Your task to perform on an android device: Add dell xps to the cart on costco.com, then select checkout. Image 0: 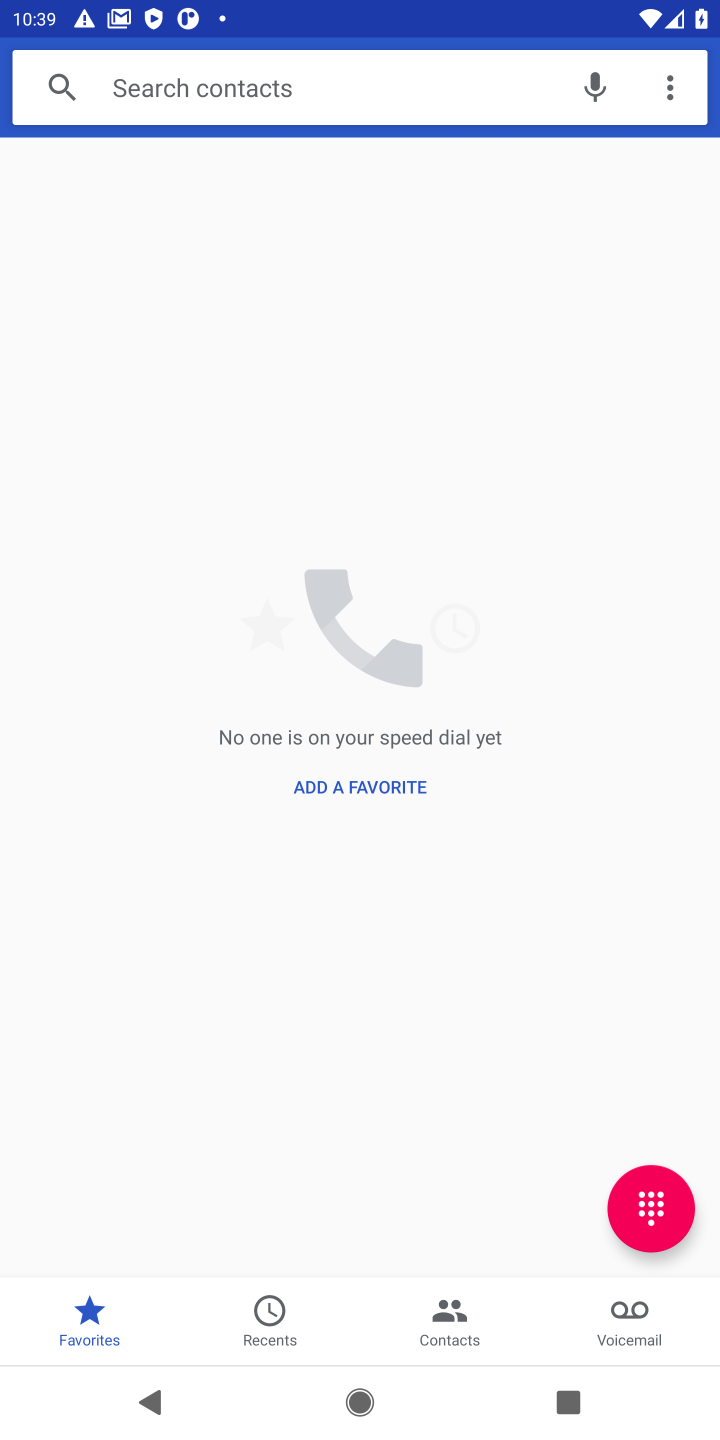
Step 0: press home button
Your task to perform on an android device: Add dell xps to the cart on costco.com, then select checkout. Image 1: 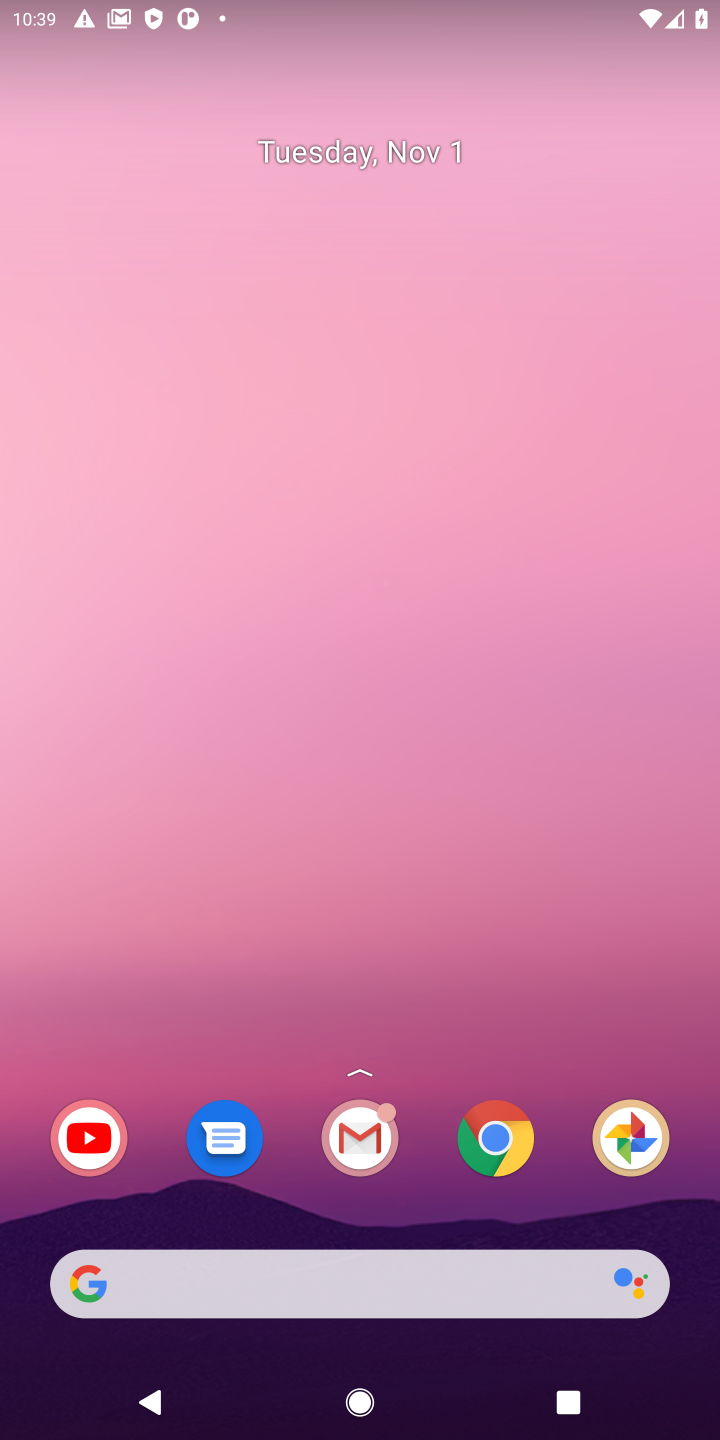
Step 1: click (500, 1162)
Your task to perform on an android device: Add dell xps to the cart on costco.com, then select checkout. Image 2: 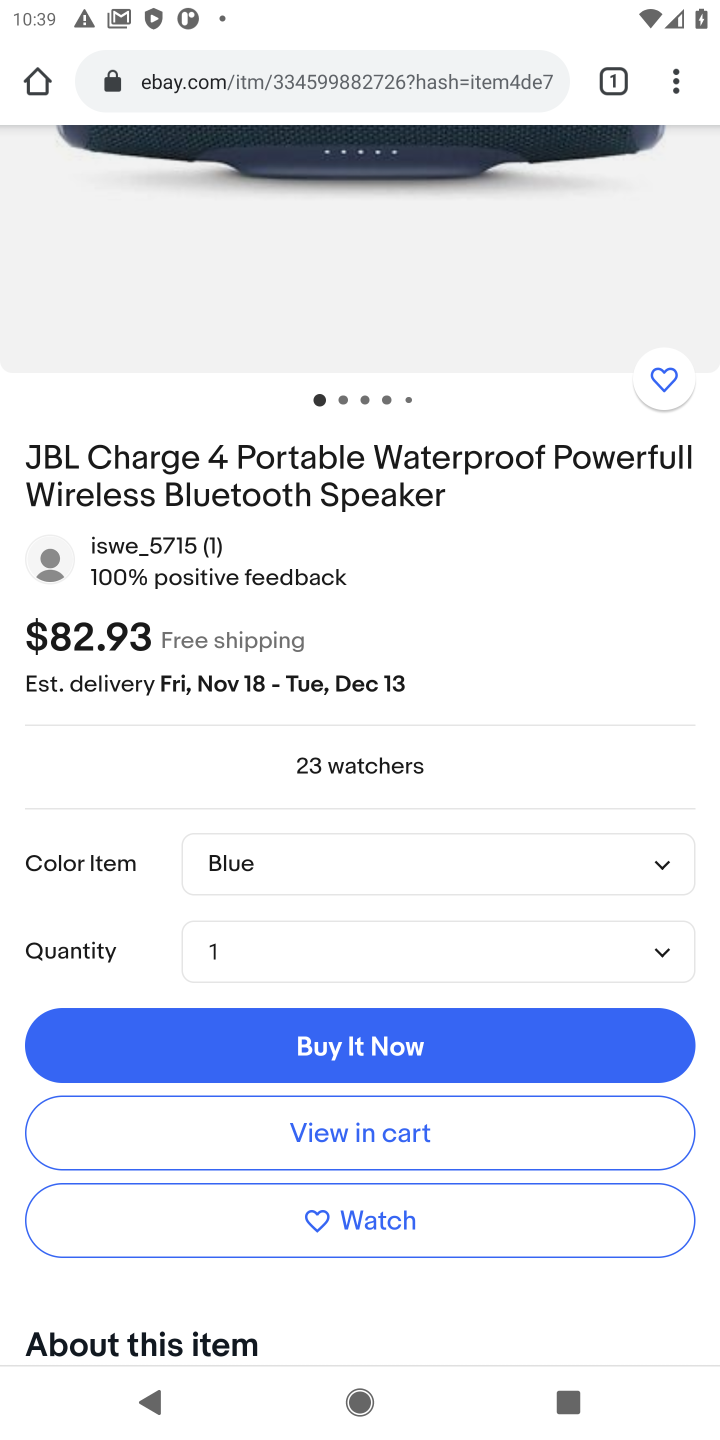
Step 2: click (330, 90)
Your task to perform on an android device: Add dell xps to the cart on costco.com, then select checkout. Image 3: 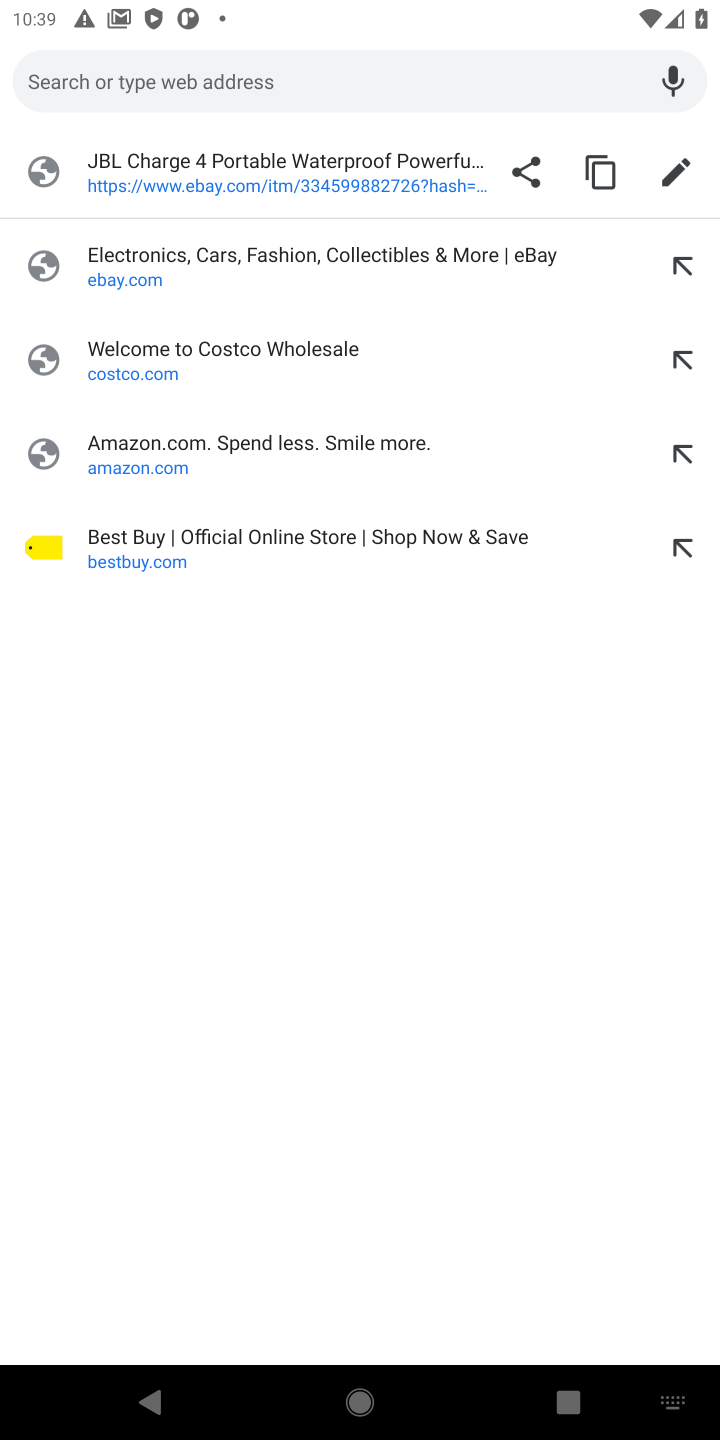
Step 3: type "costco.com"
Your task to perform on an android device: Add dell xps to the cart on costco.com, then select checkout. Image 4: 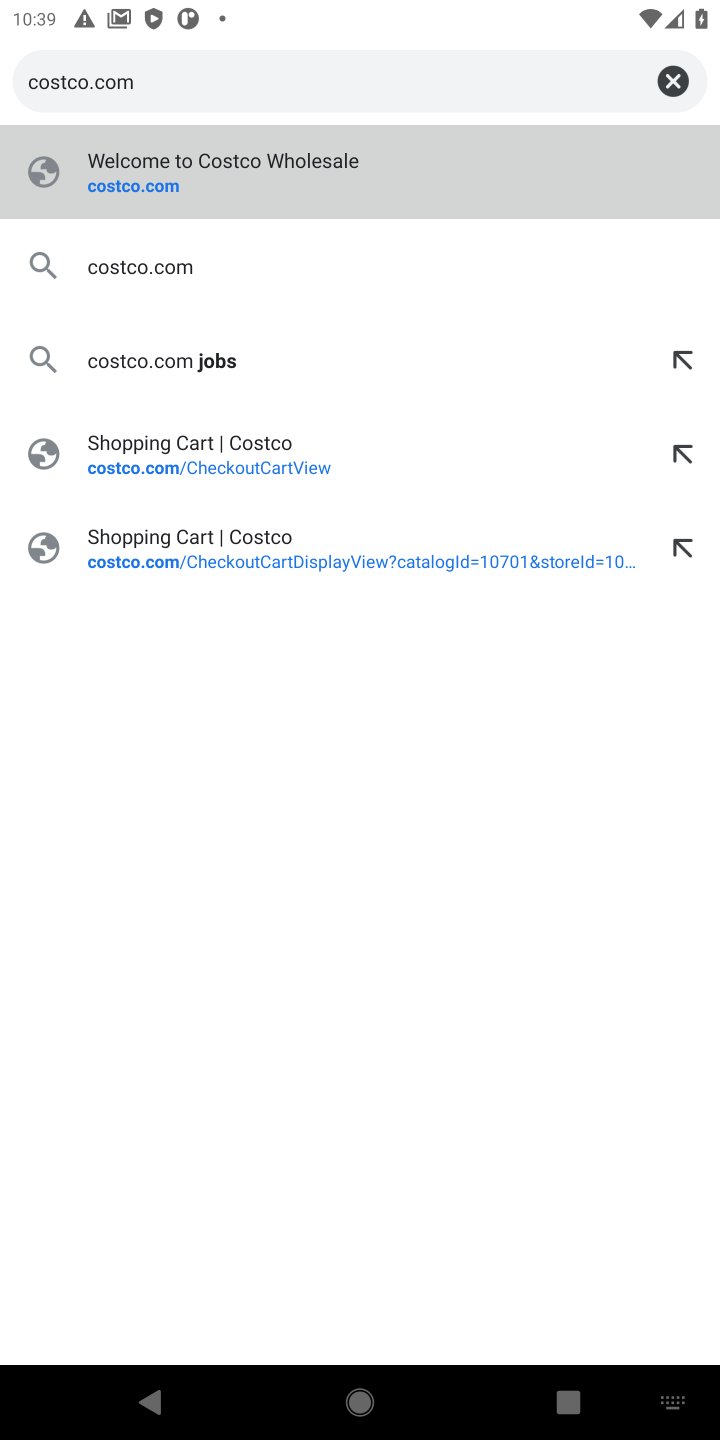
Step 4: click (151, 198)
Your task to perform on an android device: Add dell xps to the cart on costco.com, then select checkout. Image 5: 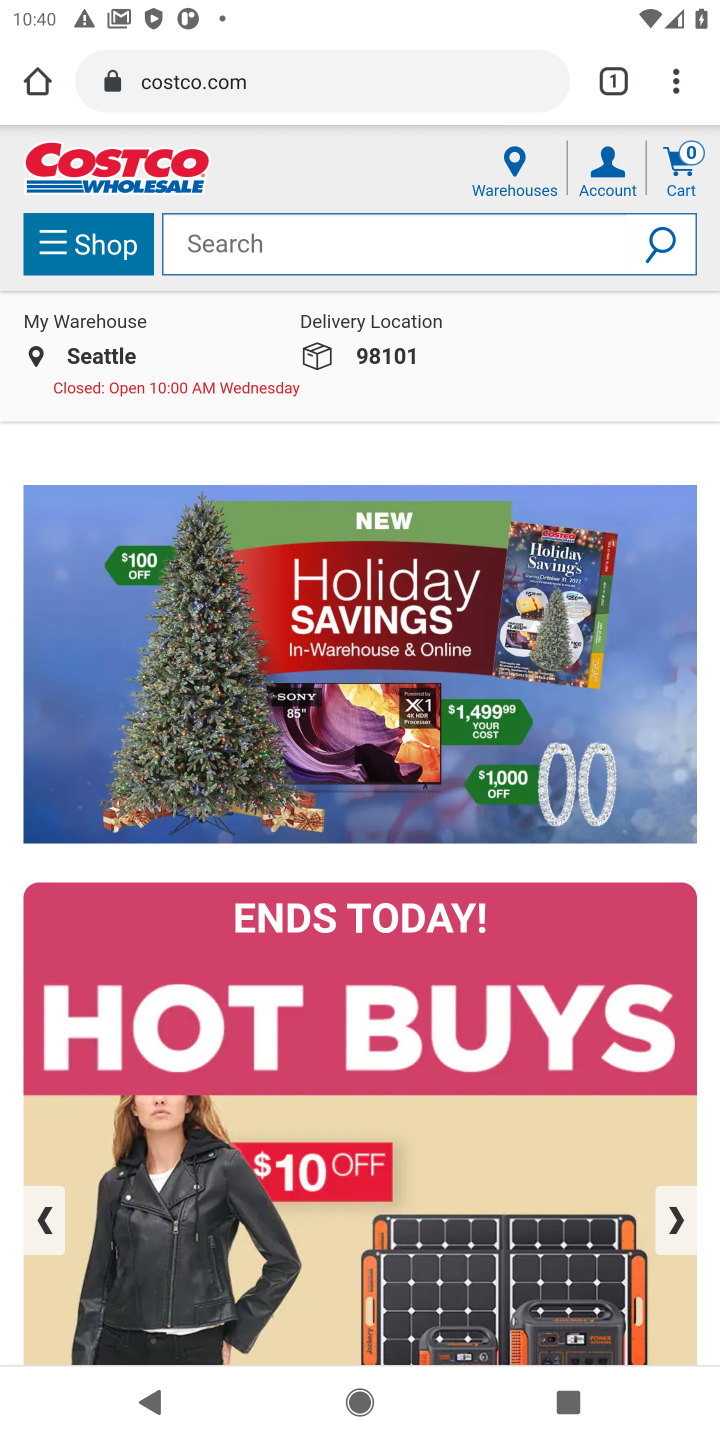
Step 5: click (261, 255)
Your task to perform on an android device: Add dell xps to the cart on costco.com, then select checkout. Image 6: 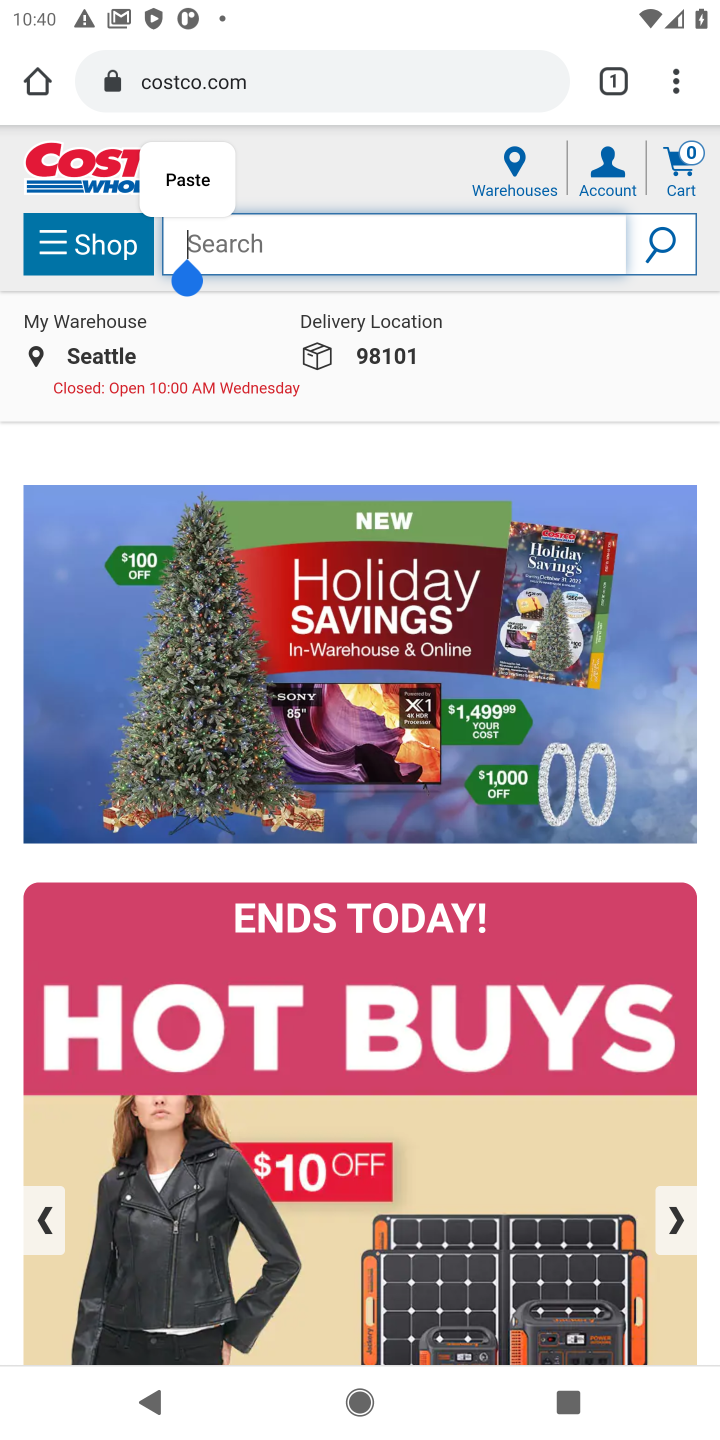
Step 6: type "dell xps "
Your task to perform on an android device: Add dell xps to the cart on costco.com, then select checkout. Image 7: 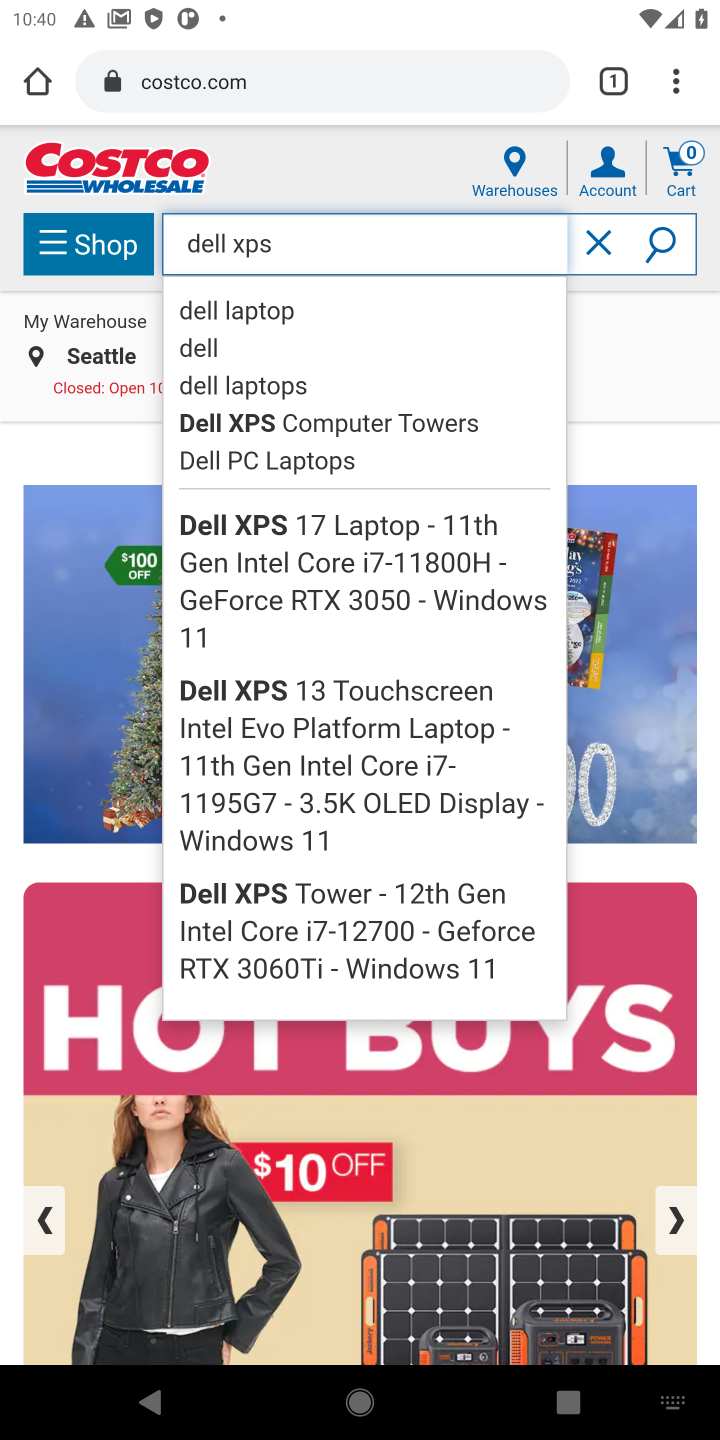
Step 7: click (672, 247)
Your task to perform on an android device: Add dell xps to the cart on costco.com, then select checkout. Image 8: 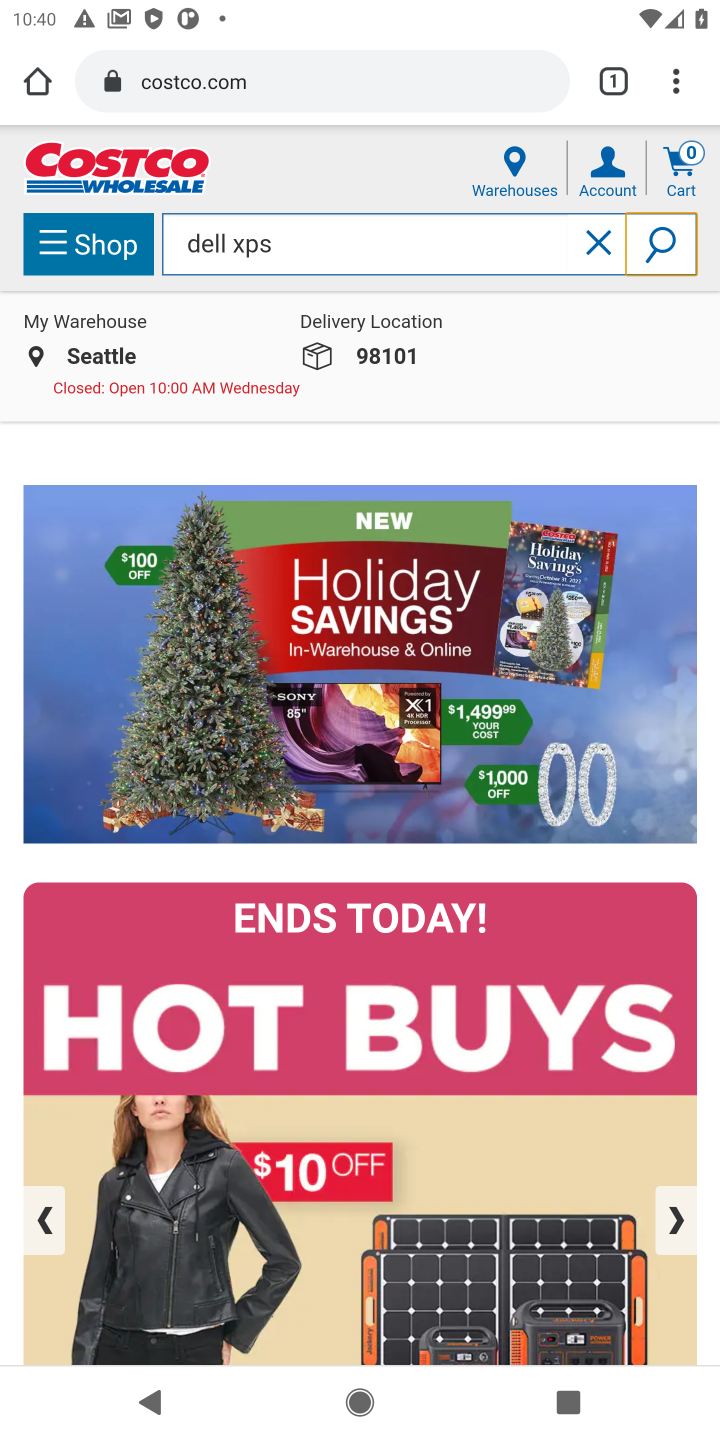
Step 8: click (663, 256)
Your task to perform on an android device: Add dell xps to the cart on costco.com, then select checkout. Image 9: 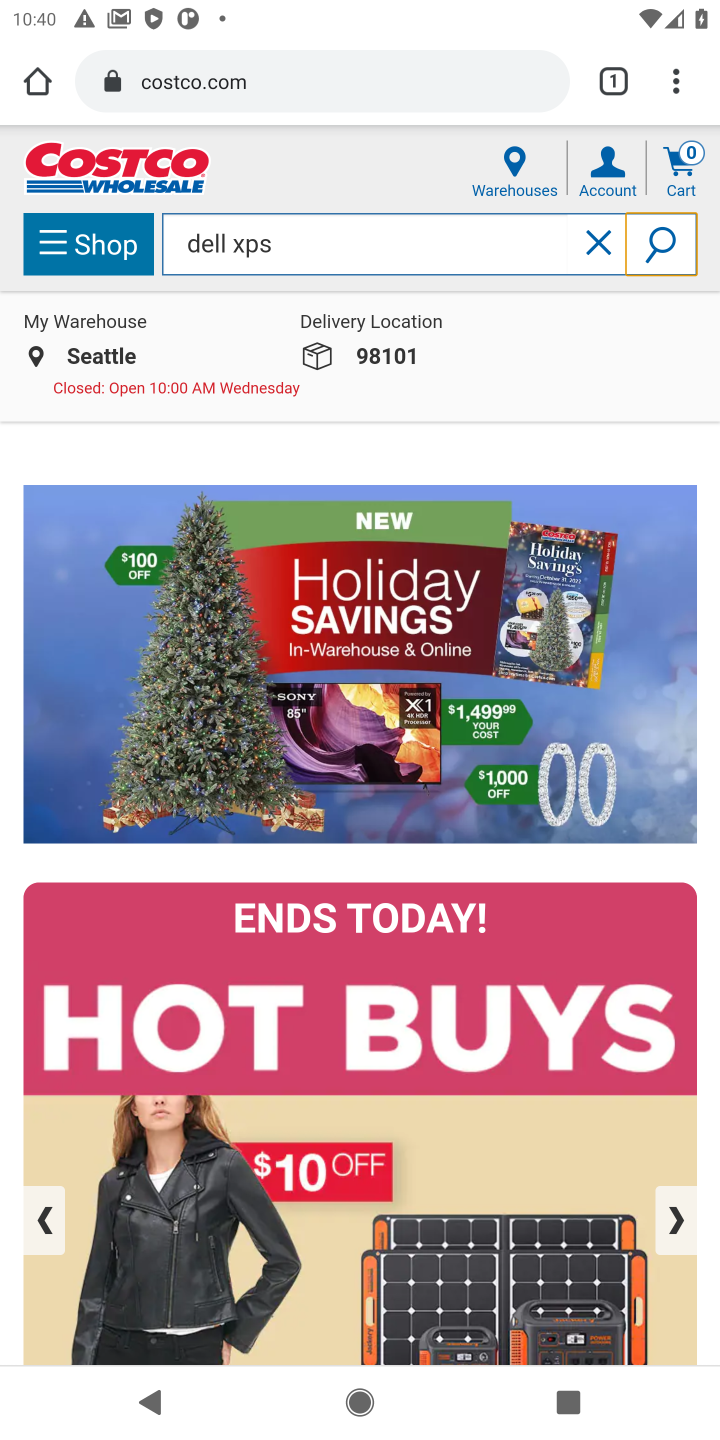
Step 9: click (322, 252)
Your task to perform on an android device: Add dell xps to the cart on costco.com, then select checkout. Image 10: 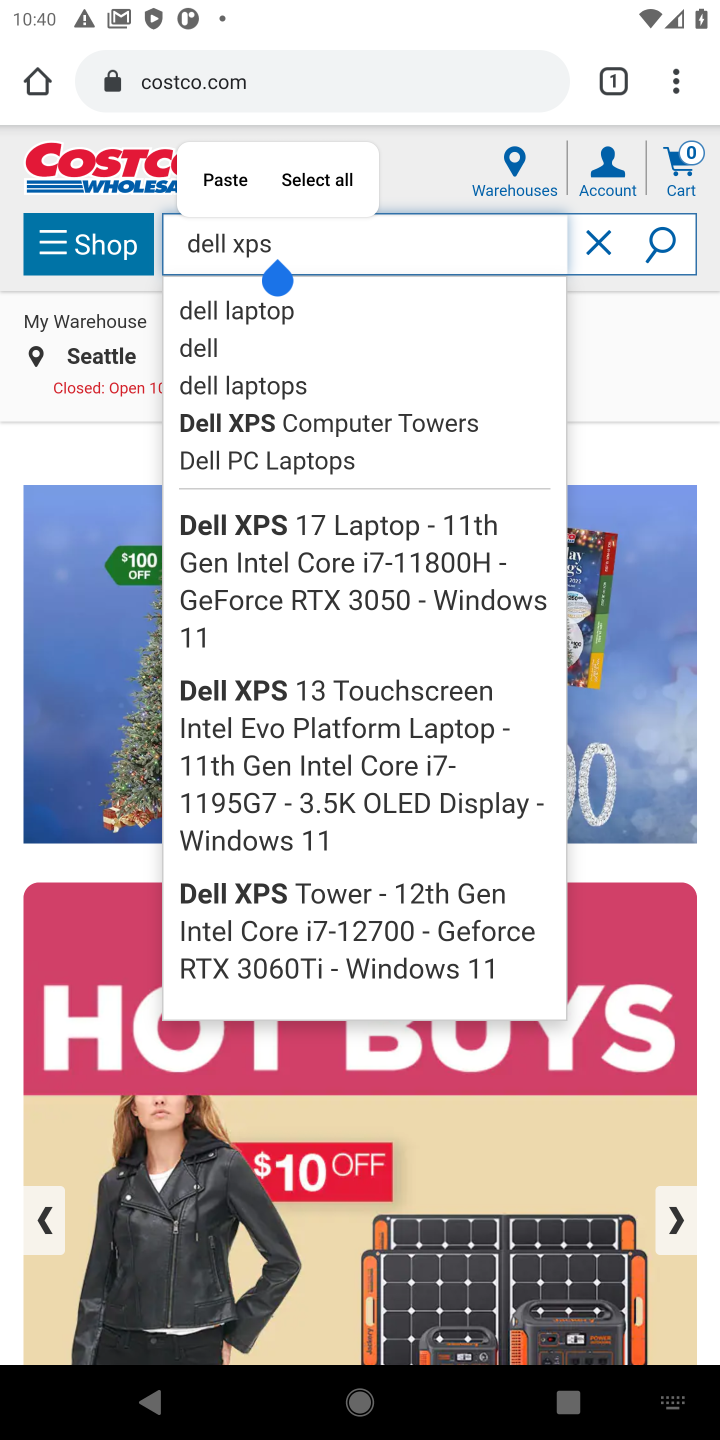
Step 10: click (639, 254)
Your task to perform on an android device: Add dell xps to the cart on costco.com, then select checkout. Image 11: 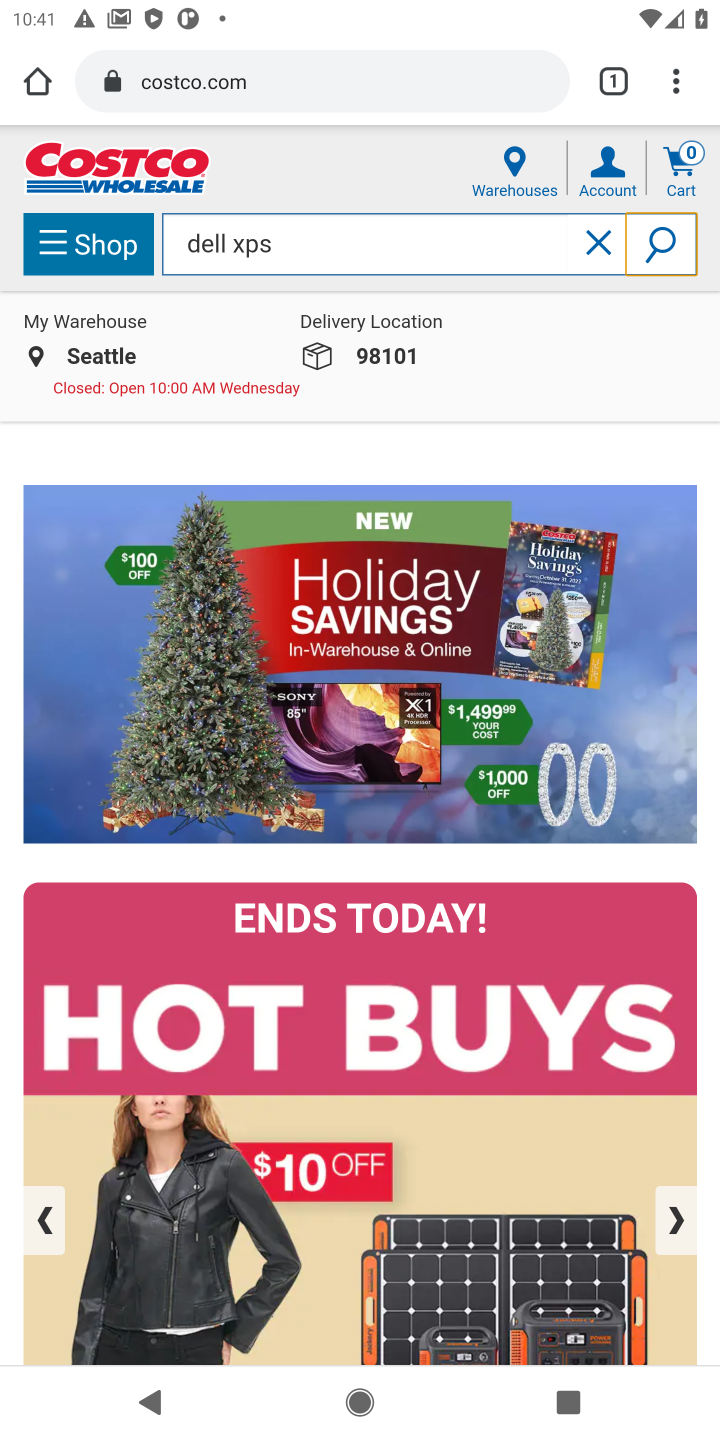
Step 11: click (662, 250)
Your task to perform on an android device: Add dell xps to the cart on costco.com, then select checkout. Image 12: 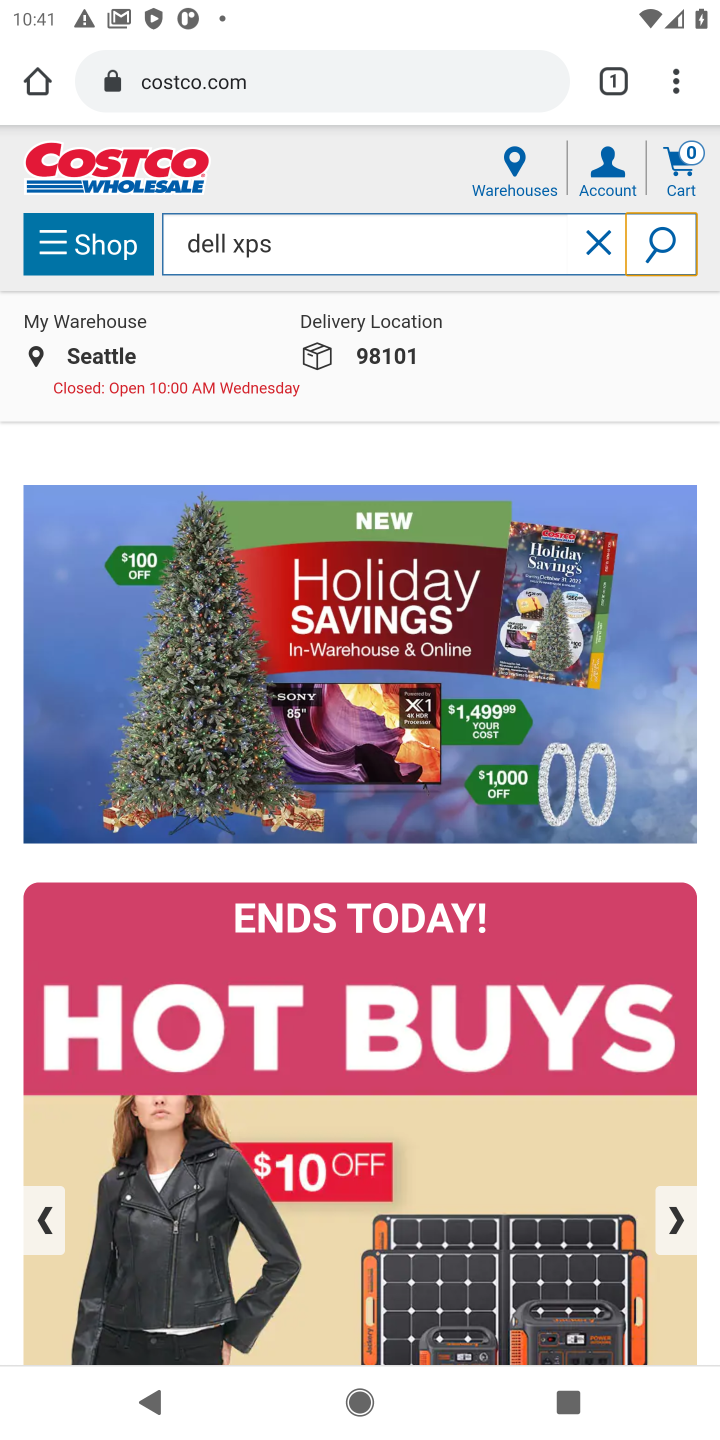
Step 12: click (682, 229)
Your task to perform on an android device: Add dell xps to the cart on costco.com, then select checkout. Image 13: 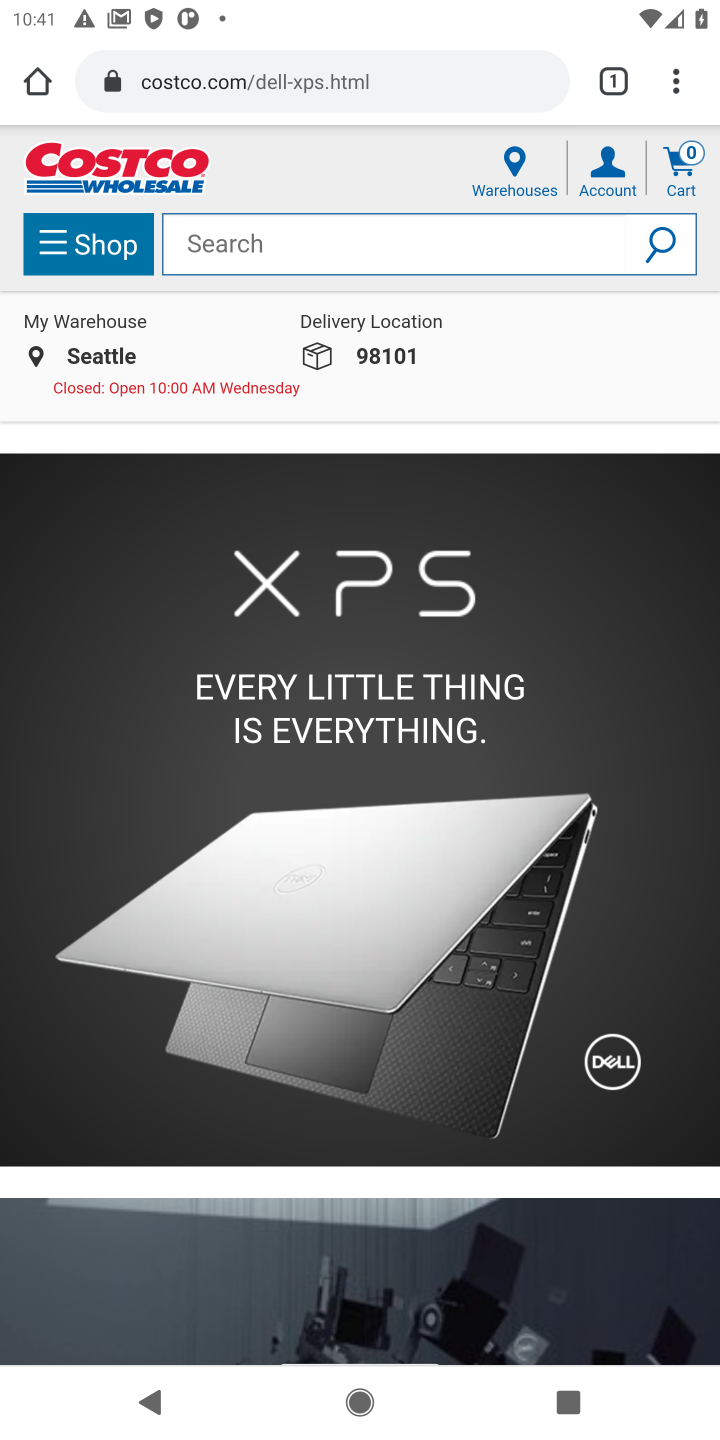
Step 13: drag from (445, 996) to (475, 372)
Your task to perform on an android device: Add dell xps to the cart on costco.com, then select checkout. Image 14: 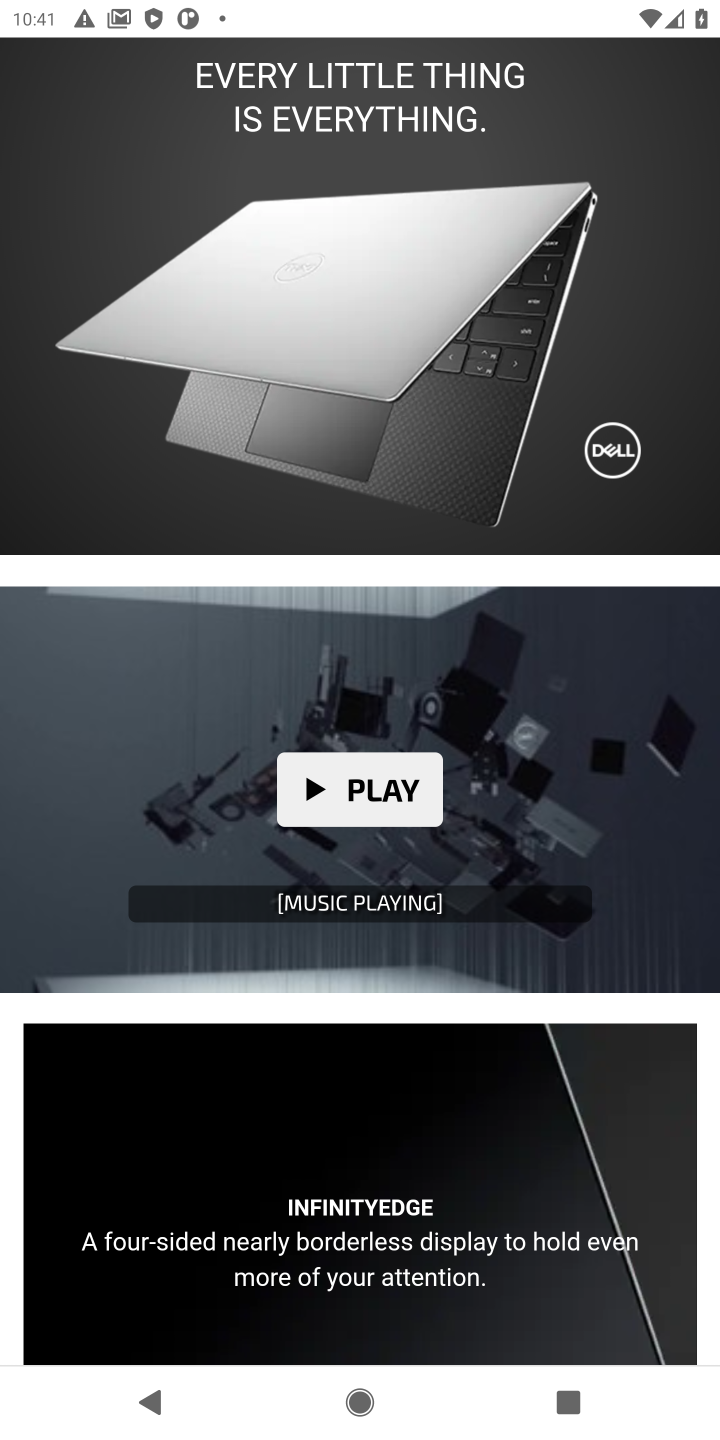
Step 14: drag from (427, 954) to (450, 544)
Your task to perform on an android device: Add dell xps to the cart on costco.com, then select checkout. Image 15: 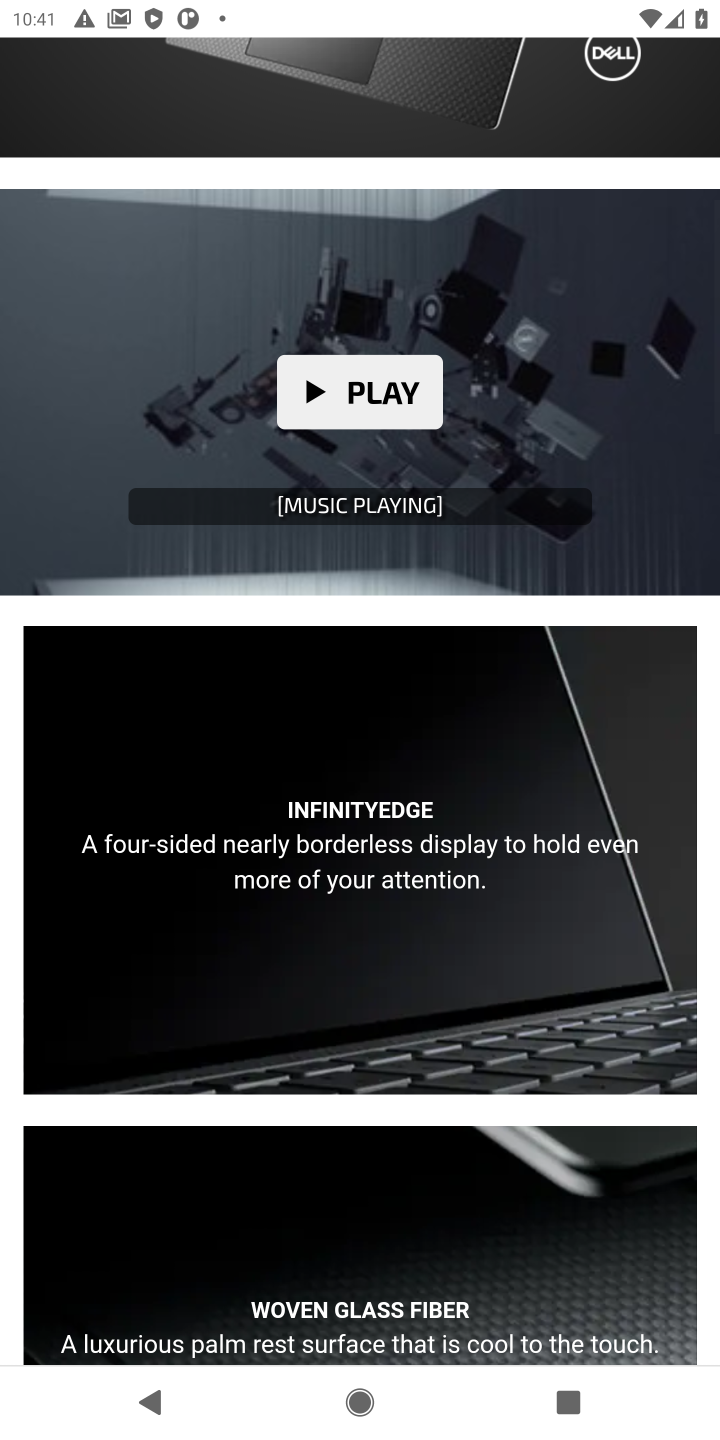
Step 15: drag from (413, 1026) to (419, 372)
Your task to perform on an android device: Add dell xps to the cart on costco.com, then select checkout. Image 16: 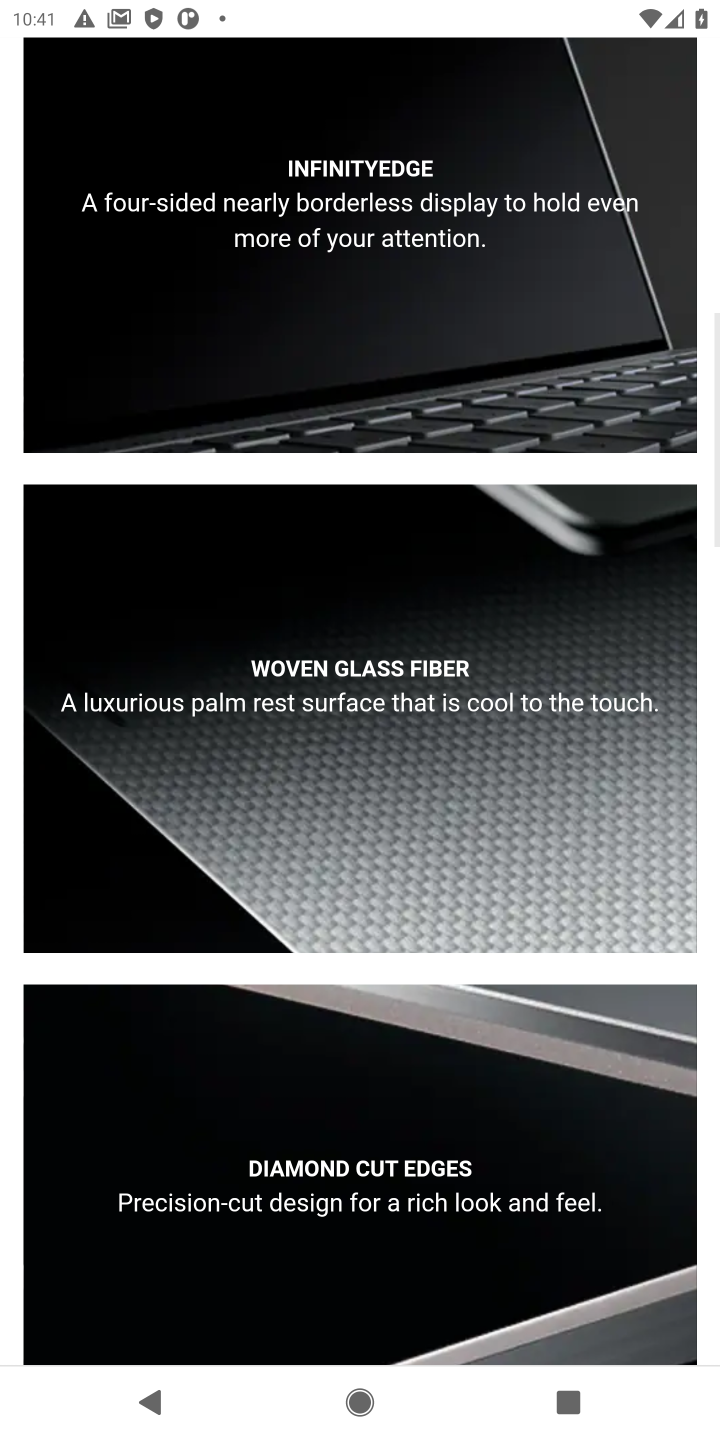
Step 16: drag from (366, 1065) to (394, 409)
Your task to perform on an android device: Add dell xps to the cart on costco.com, then select checkout. Image 17: 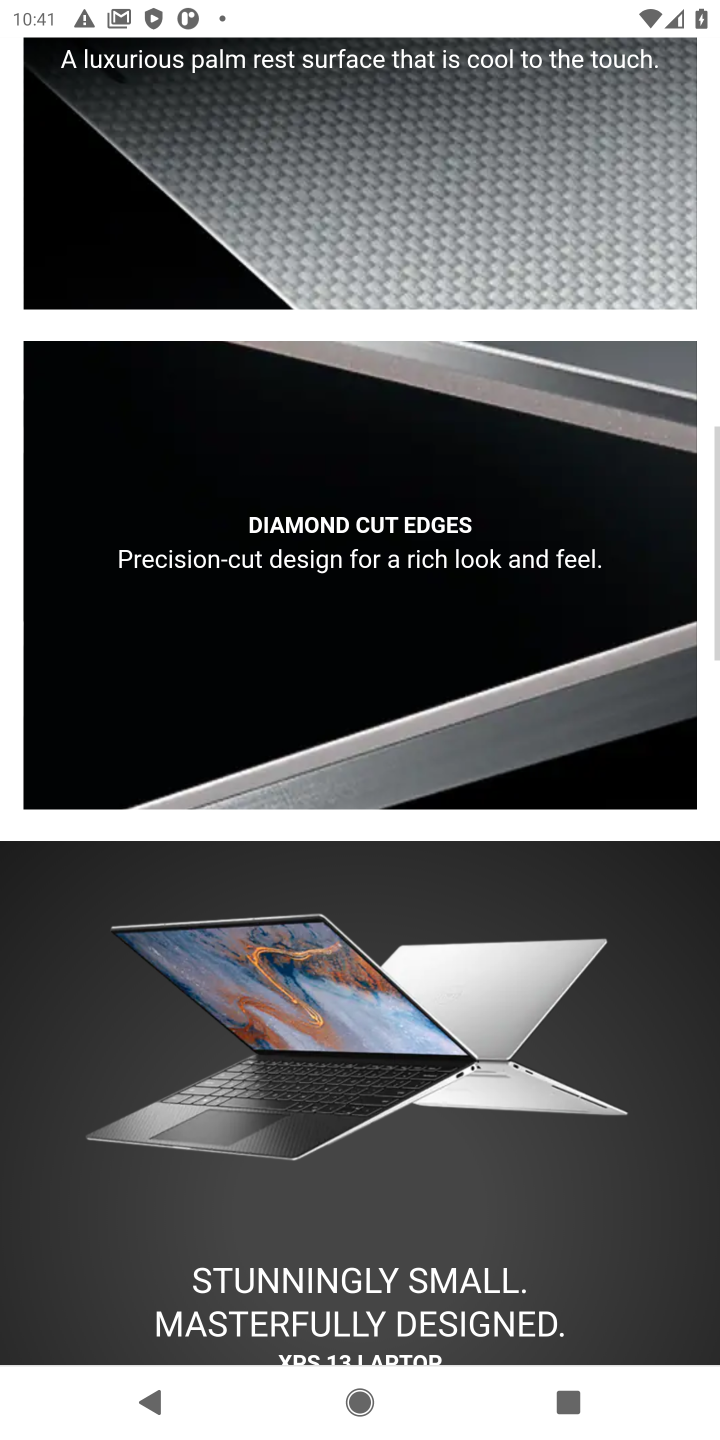
Step 17: drag from (396, 561) to (465, 1438)
Your task to perform on an android device: Add dell xps to the cart on costco.com, then select checkout. Image 18: 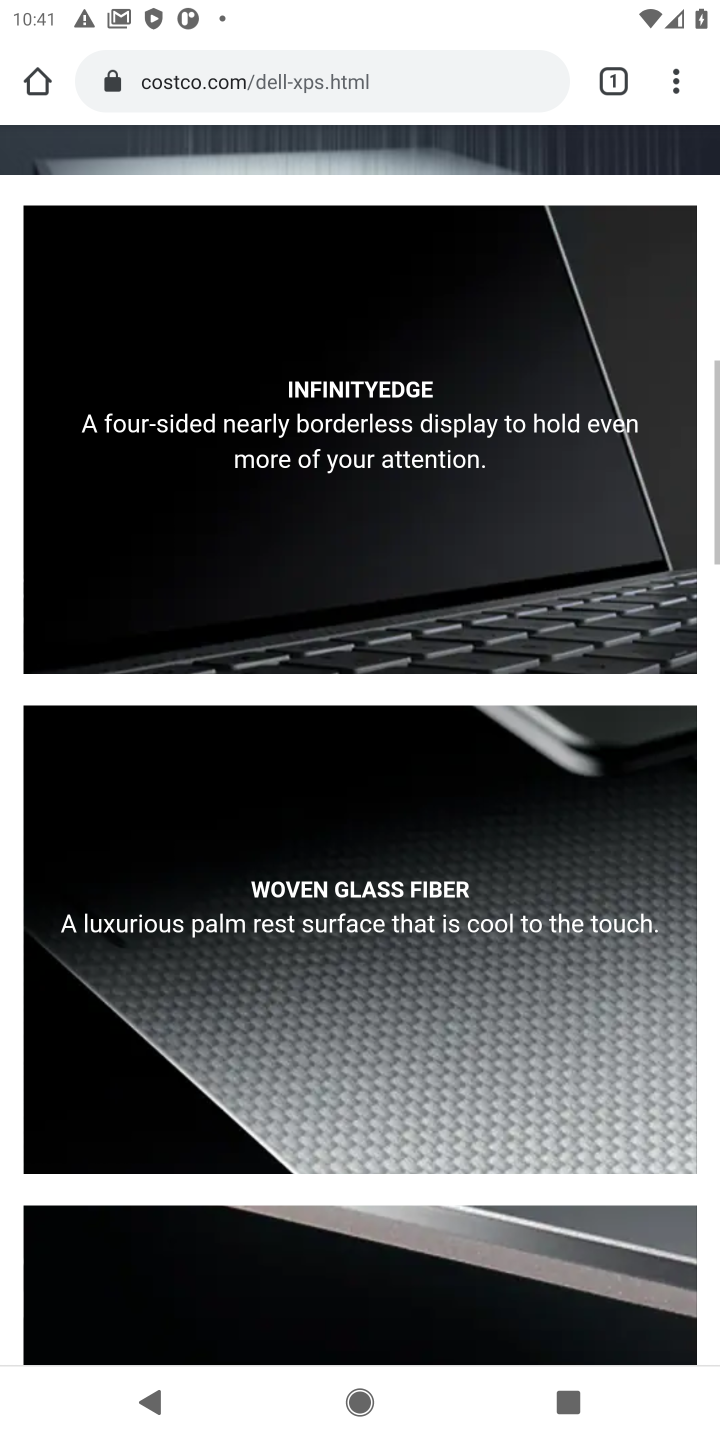
Step 18: drag from (416, 463) to (369, 1306)
Your task to perform on an android device: Add dell xps to the cart on costco.com, then select checkout. Image 19: 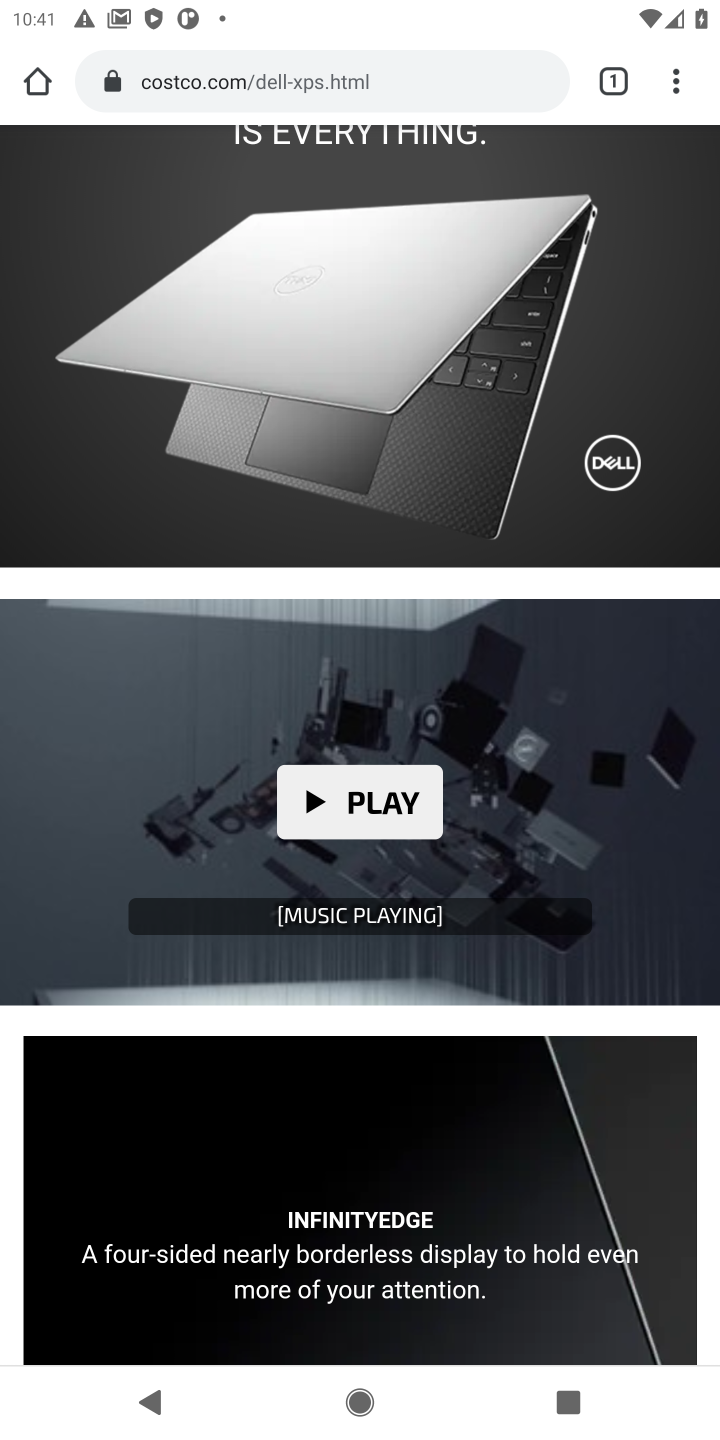
Step 19: drag from (421, 298) to (395, 1260)
Your task to perform on an android device: Add dell xps to the cart on costco.com, then select checkout. Image 20: 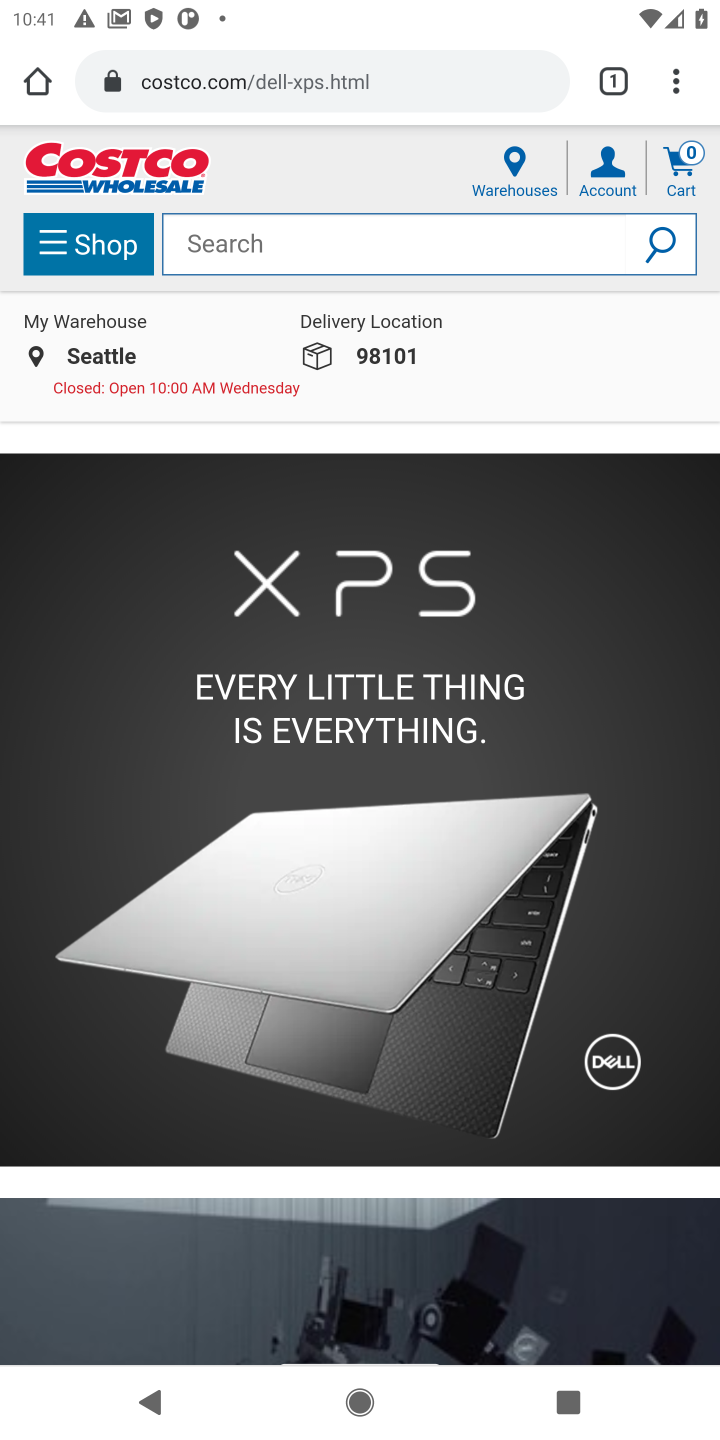
Step 20: drag from (347, 438) to (345, 589)
Your task to perform on an android device: Add dell xps to the cart on costco.com, then select checkout. Image 21: 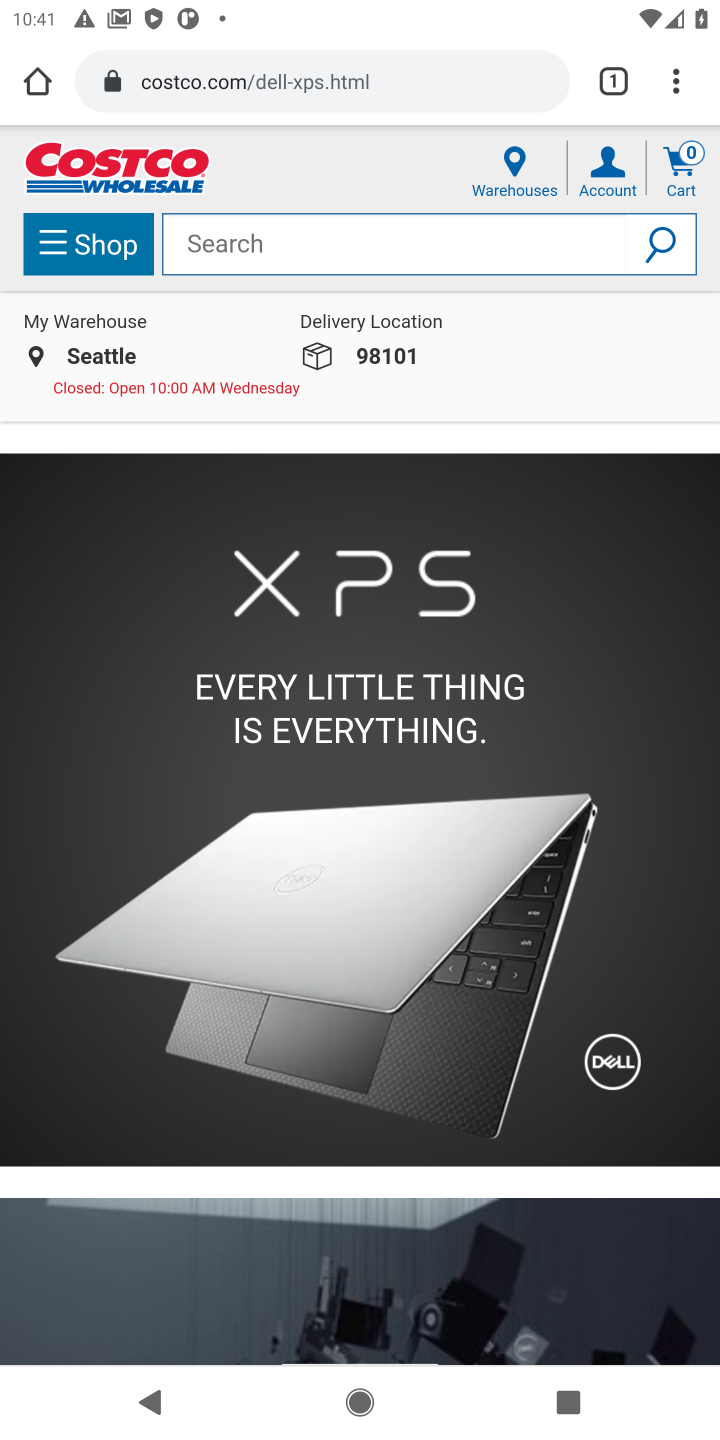
Step 21: click (302, 239)
Your task to perform on an android device: Add dell xps to the cart on costco.com, then select checkout. Image 22: 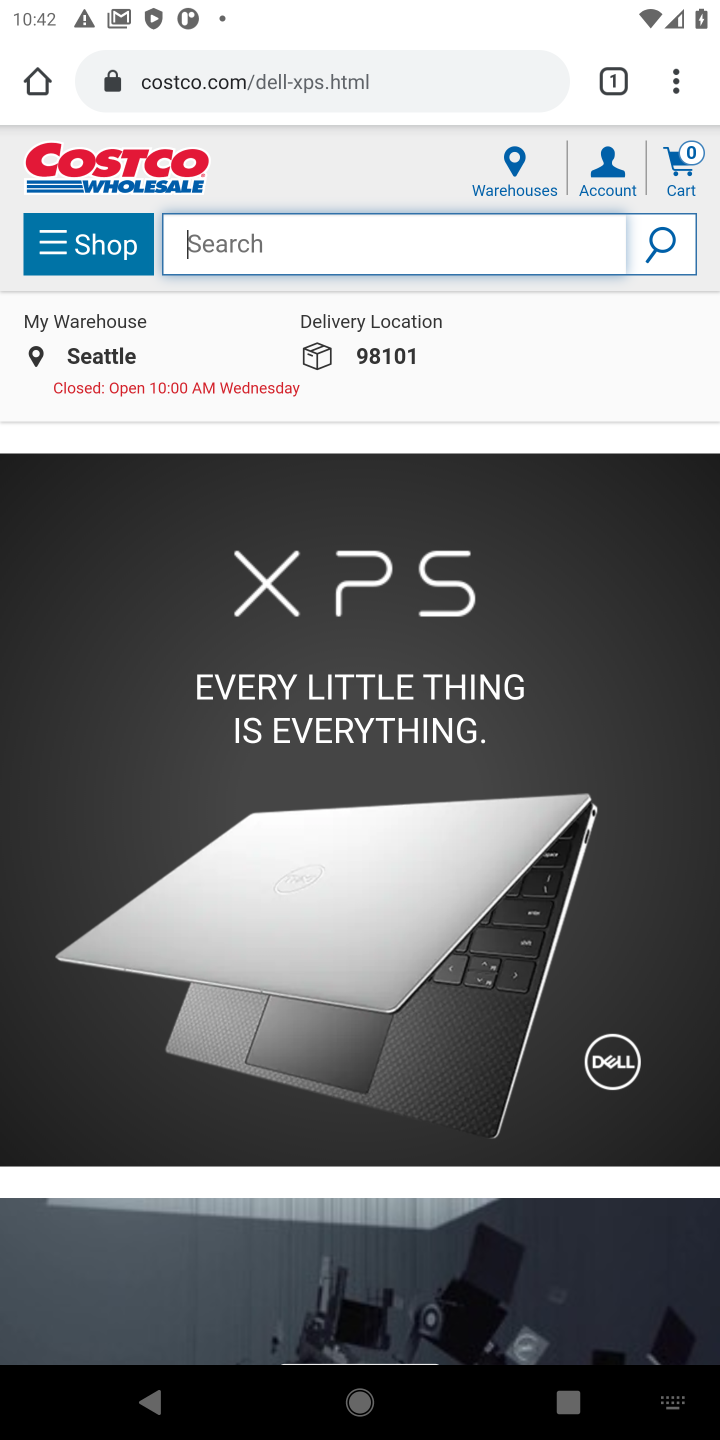
Step 22: click (227, 252)
Your task to perform on an android device: Add dell xps to the cart on costco.com, then select checkout. Image 23: 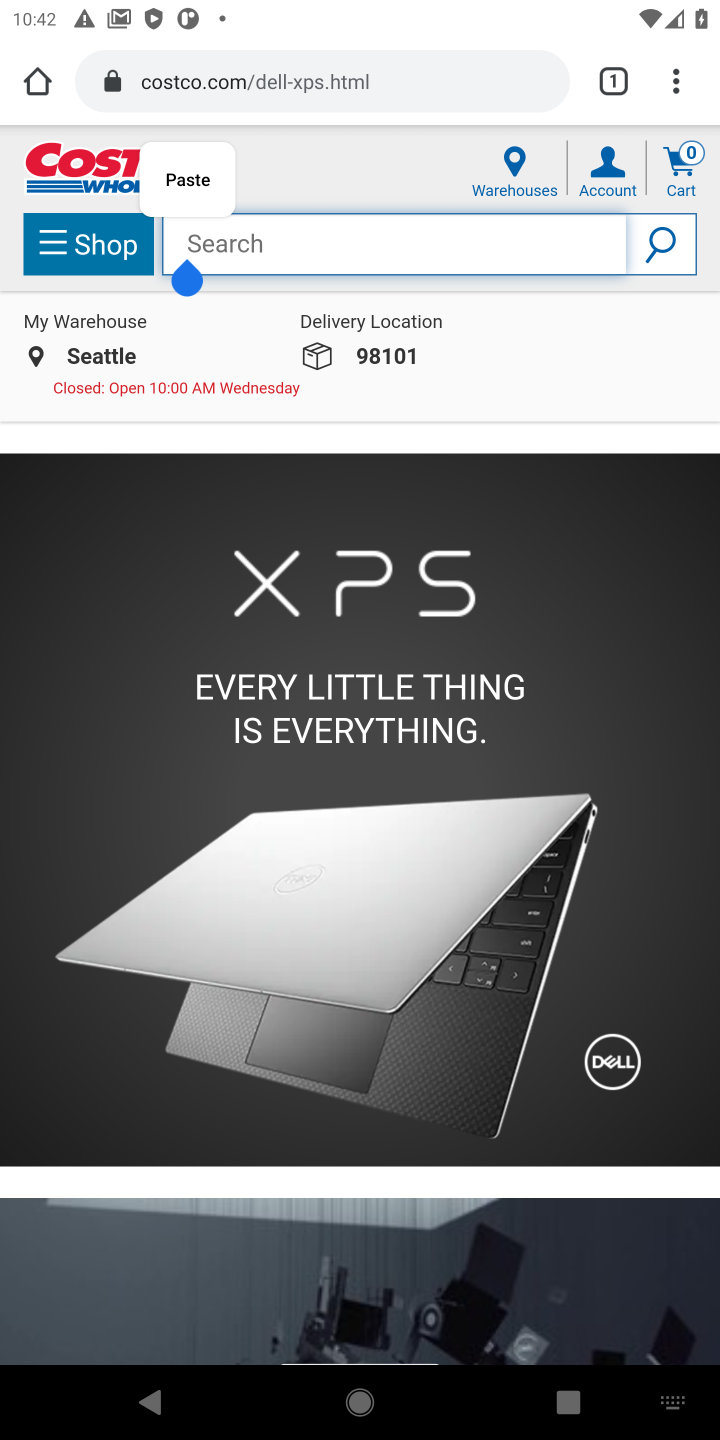
Step 23: type "dell xps"
Your task to perform on an android device: Add dell xps to the cart on costco.com, then select checkout. Image 24: 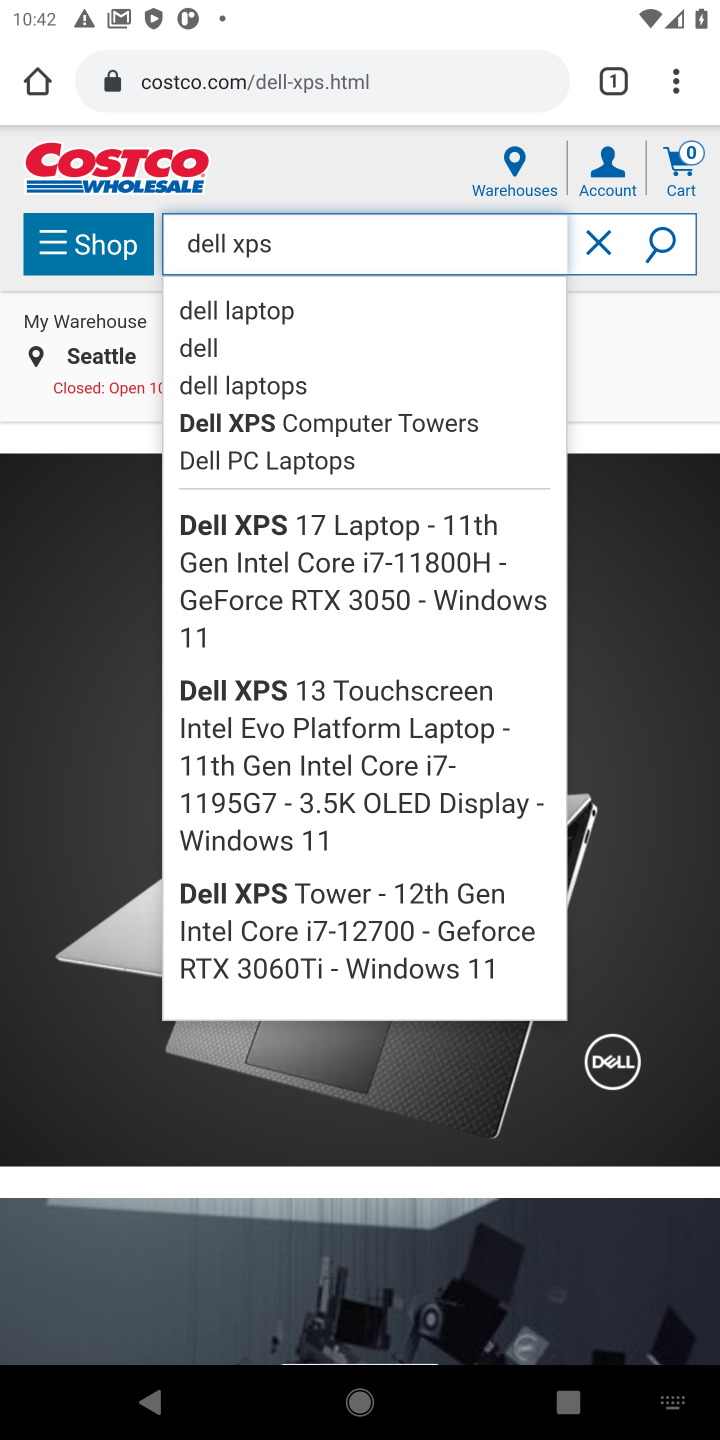
Step 24: click (654, 247)
Your task to perform on an android device: Add dell xps to the cart on costco.com, then select checkout. Image 25: 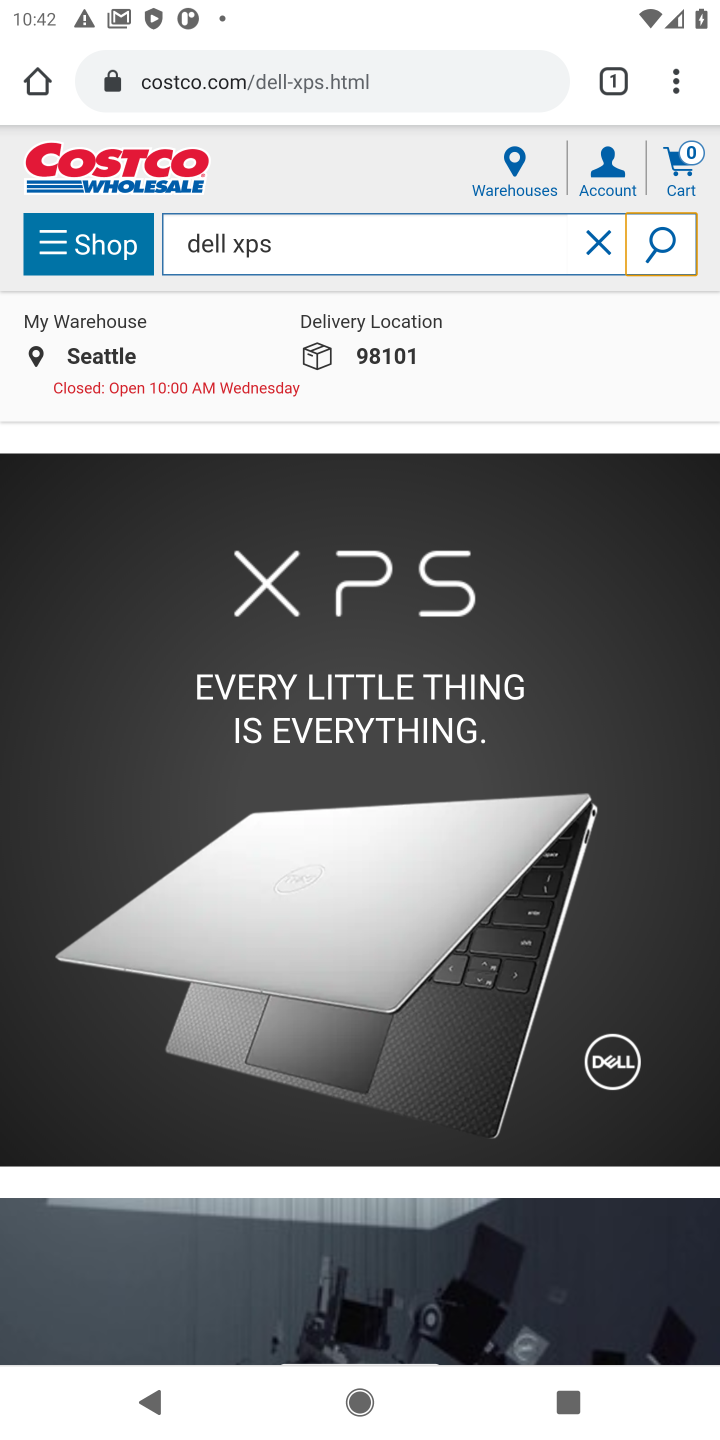
Step 25: task complete